Your task to perform on an android device: delete location history Image 0: 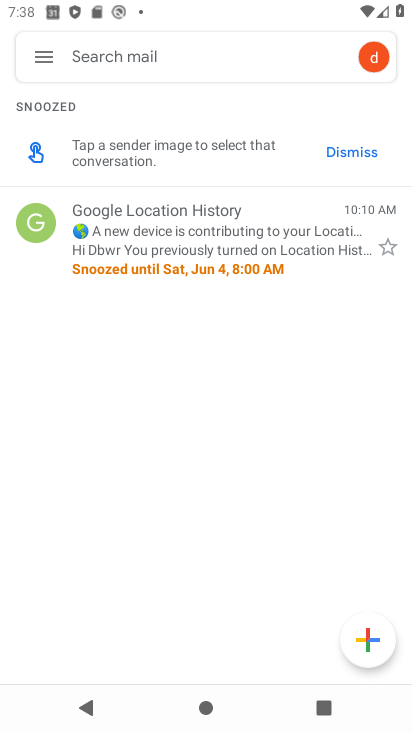
Step 0: press home button
Your task to perform on an android device: delete location history Image 1: 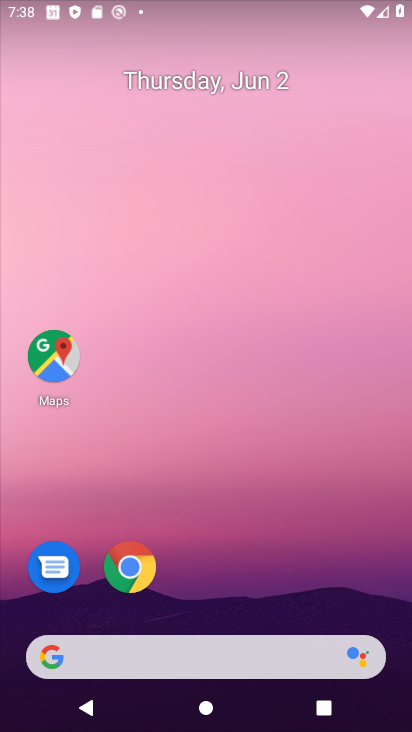
Step 1: drag from (332, 594) to (321, 74)
Your task to perform on an android device: delete location history Image 2: 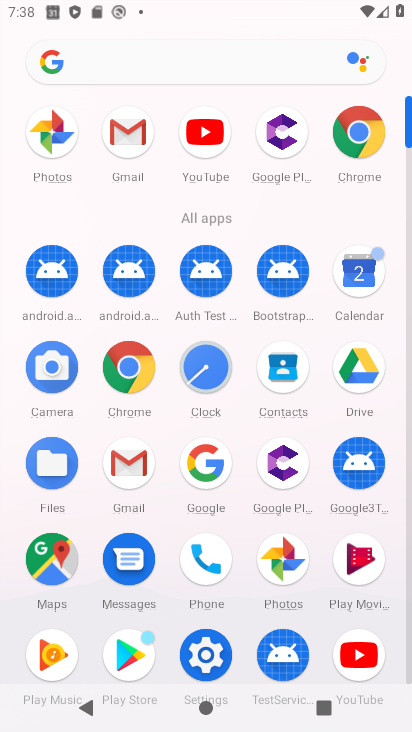
Step 2: click (53, 572)
Your task to perform on an android device: delete location history Image 3: 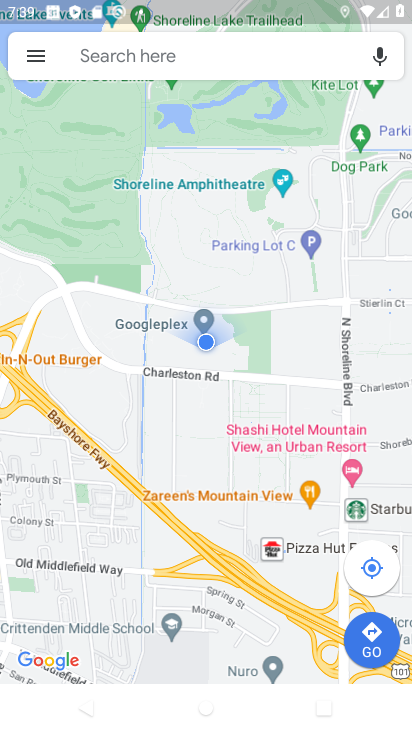
Step 3: click (36, 62)
Your task to perform on an android device: delete location history Image 4: 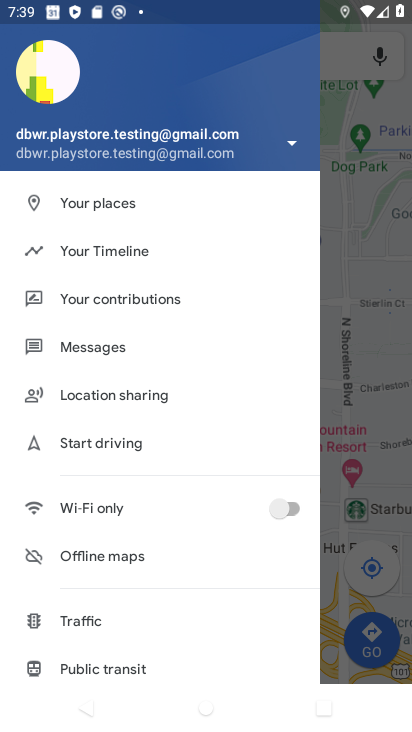
Step 4: click (92, 251)
Your task to perform on an android device: delete location history Image 5: 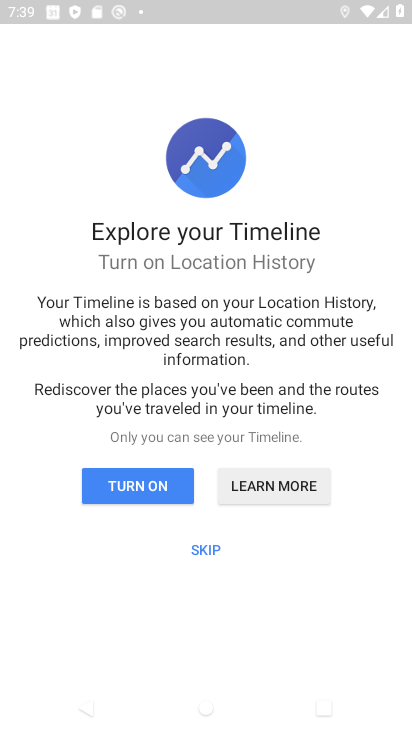
Step 5: click (208, 550)
Your task to perform on an android device: delete location history Image 6: 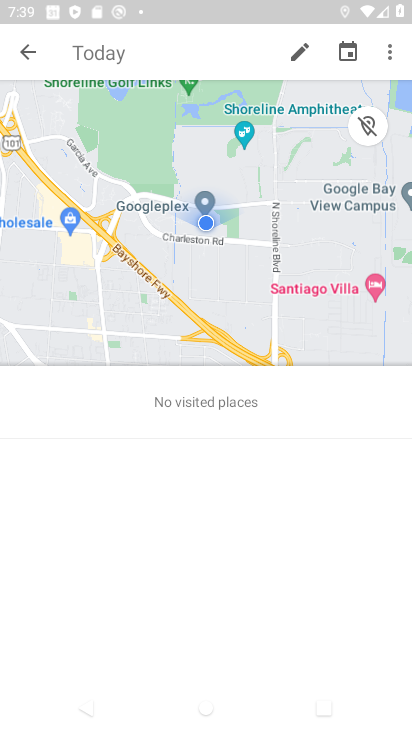
Step 6: click (389, 58)
Your task to perform on an android device: delete location history Image 7: 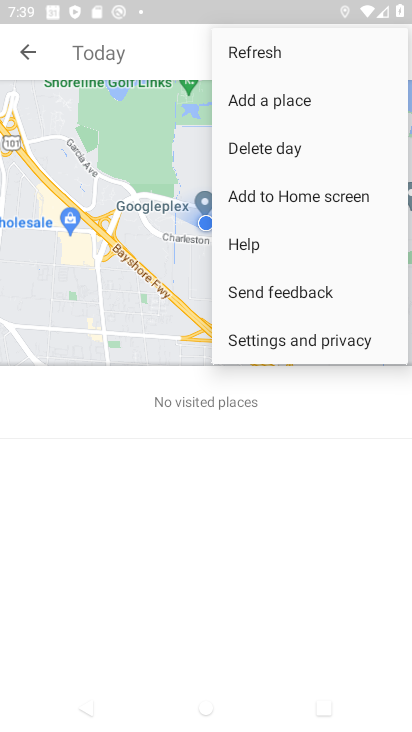
Step 7: click (321, 347)
Your task to perform on an android device: delete location history Image 8: 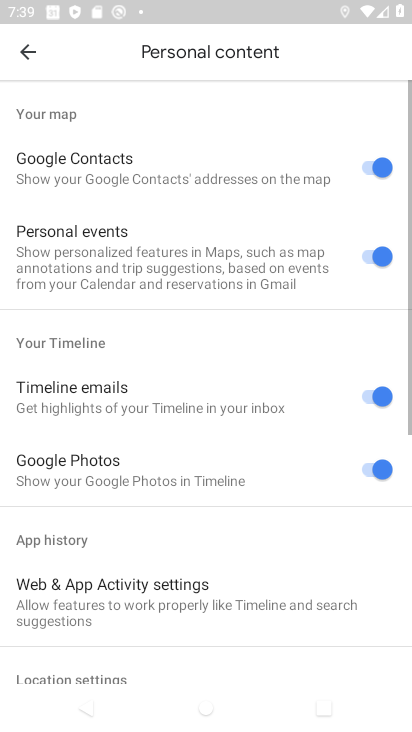
Step 8: drag from (265, 464) to (303, 271)
Your task to perform on an android device: delete location history Image 9: 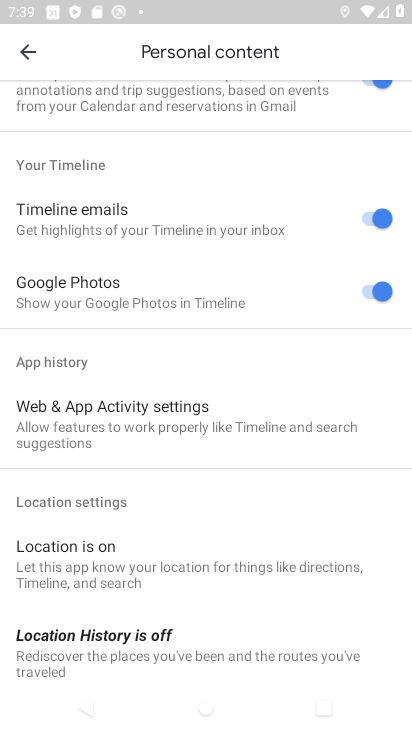
Step 9: drag from (285, 575) to (307, 318)
Your task to perform on an android device: delete location history Image 10: 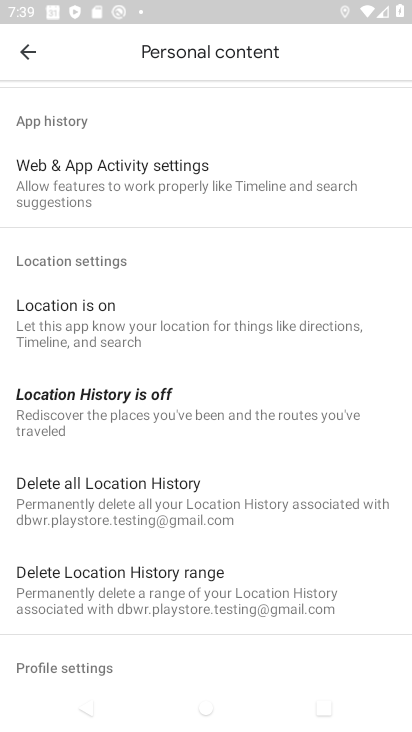
Step 10: click (208, 493)
Your task to perform on an android device: delete location history Image 11: 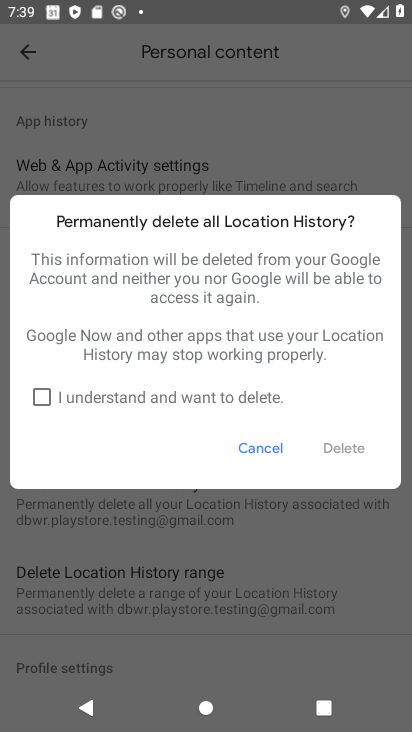
Step 11: click (37, 397)
Your task to perform on an android device: delete location history Image 12: 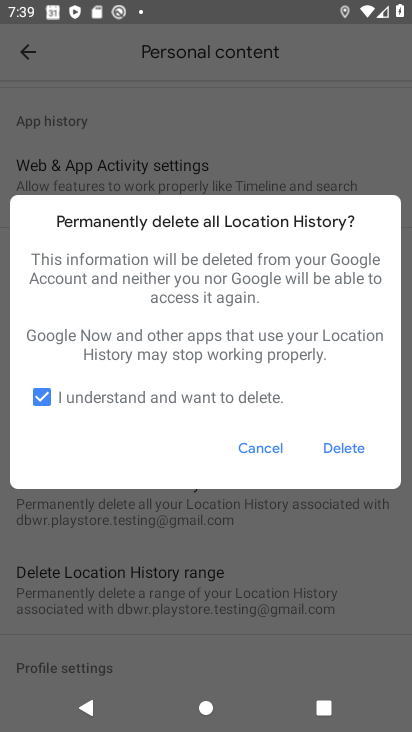
Step 12: click (329, 458)
Your task to perform on an android device: delete location history Image 13: 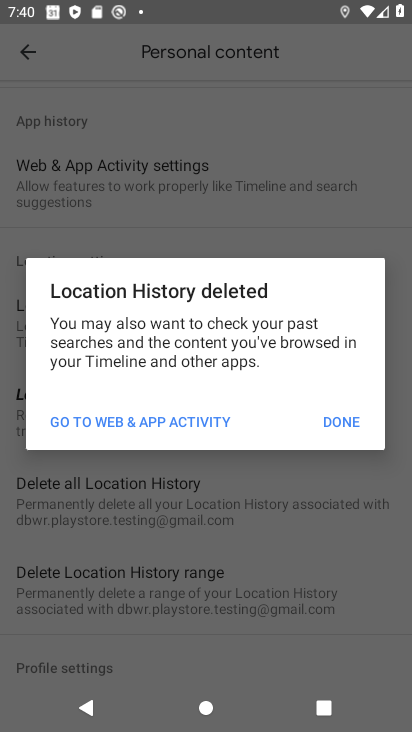
Step 13: click (334, 419)
Your task to perform on an android device: delete location history Image 14: 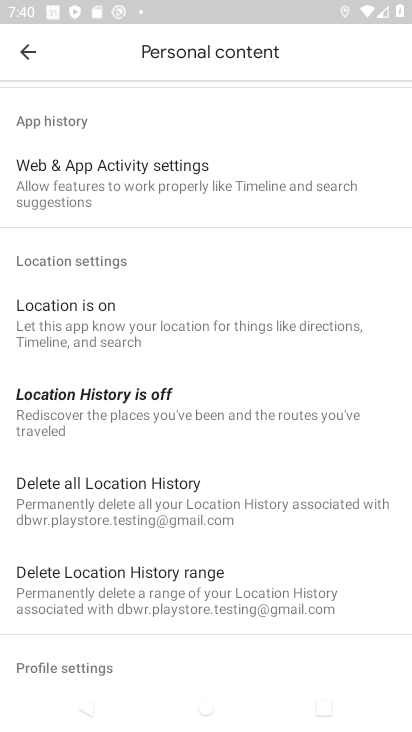
Step 14: task complete